Your task to perform on an android device: Go to battery settings Image 0: 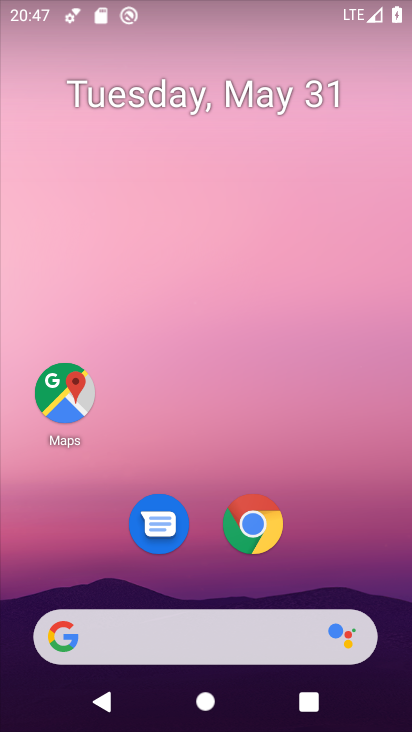
Step 0: drag from (322, 543) to (268, 38)
Your task to perform on an android device: Go to battery settings Image 1: 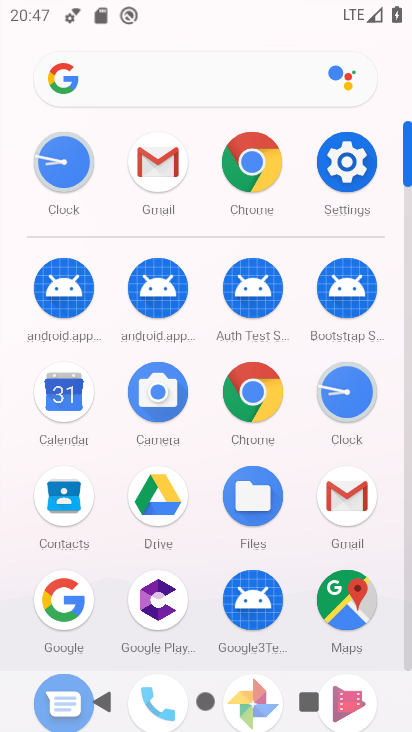
Step 1: click (334, 151)
Your task to perform on an android device: Go to battery settings Image 2: 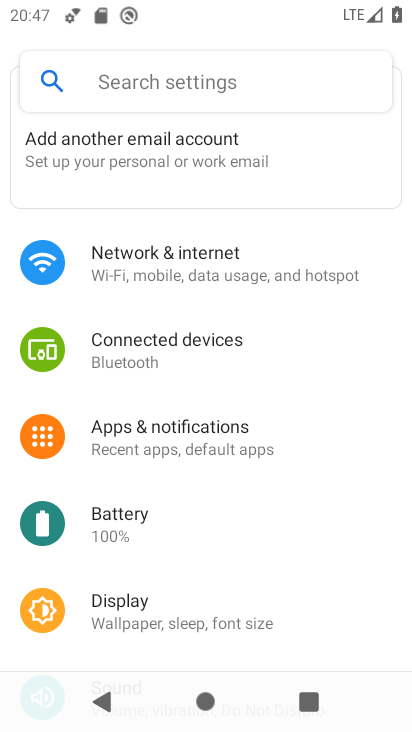
Step 2: click (203, 524)
Your task to perform on an android device: Go to battery settings Image 3: 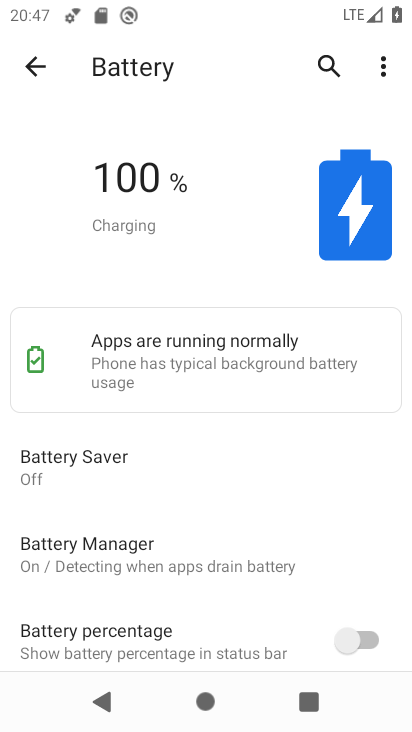
Step 3: task complete